Your task to perform on an android device: Go to battery settings Image 0: 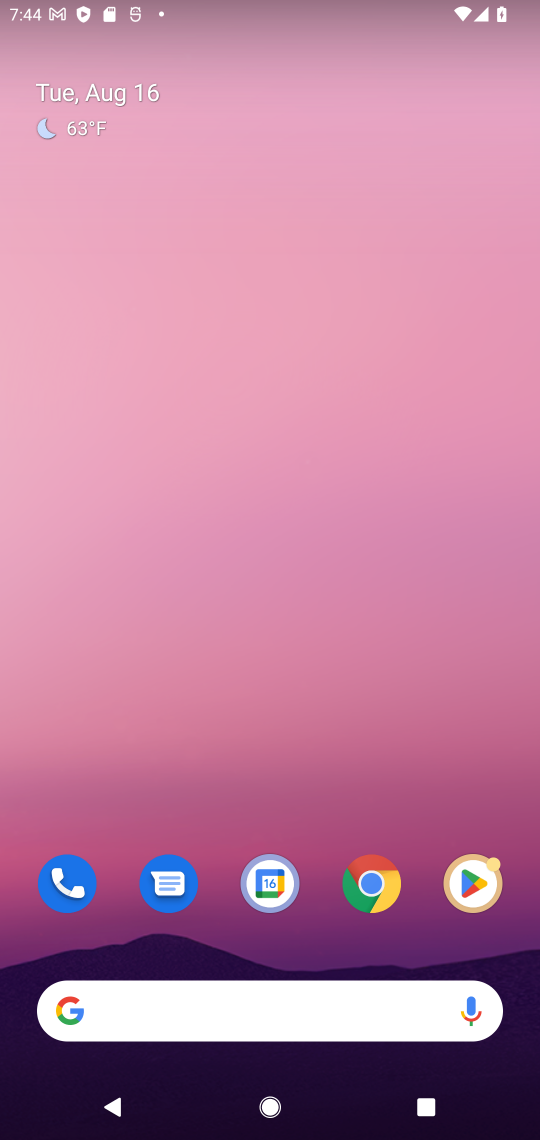
Step 0: drag from (316, 816) to (297, 341)
Your task to perform on an android device: Go to battery settings Image 1: 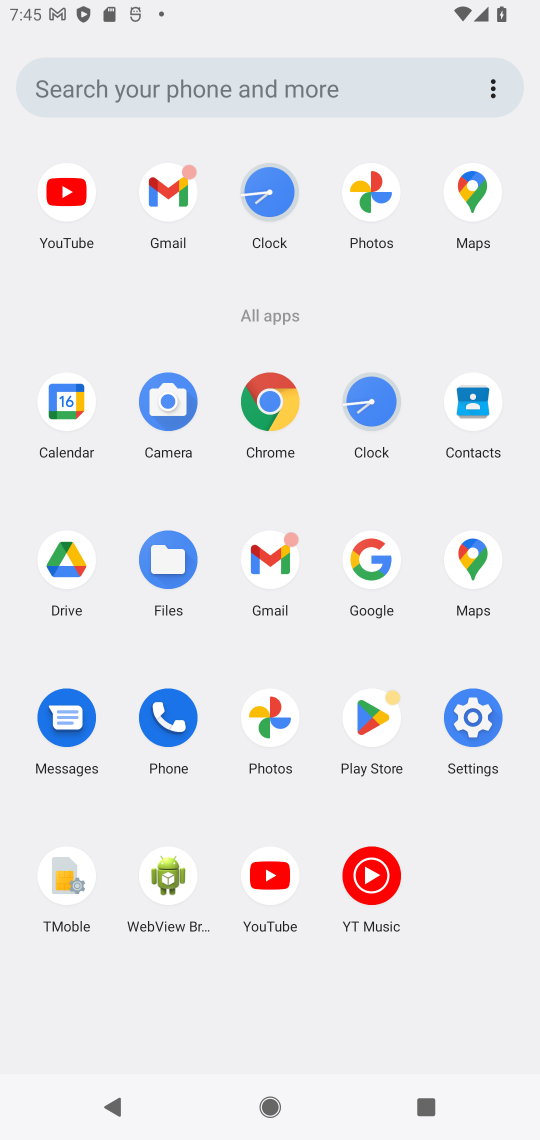
Step 1: click (452, 728)
Your task to perform on an android device: Go to battery settings Image 2: 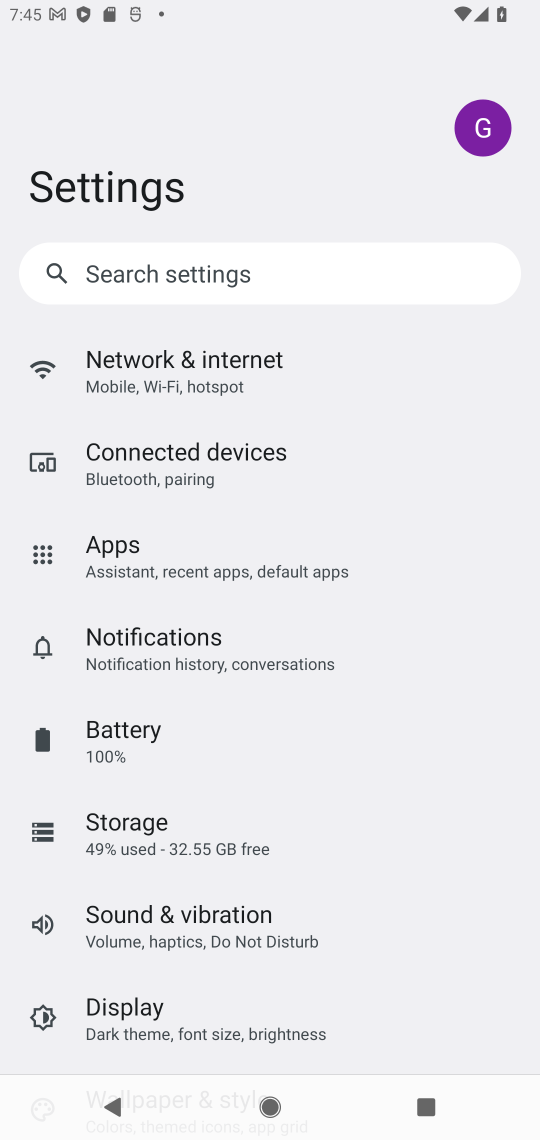
Step 2: click (172, 745)
Your task to perform on an android device: Go to battery settings Image 3: 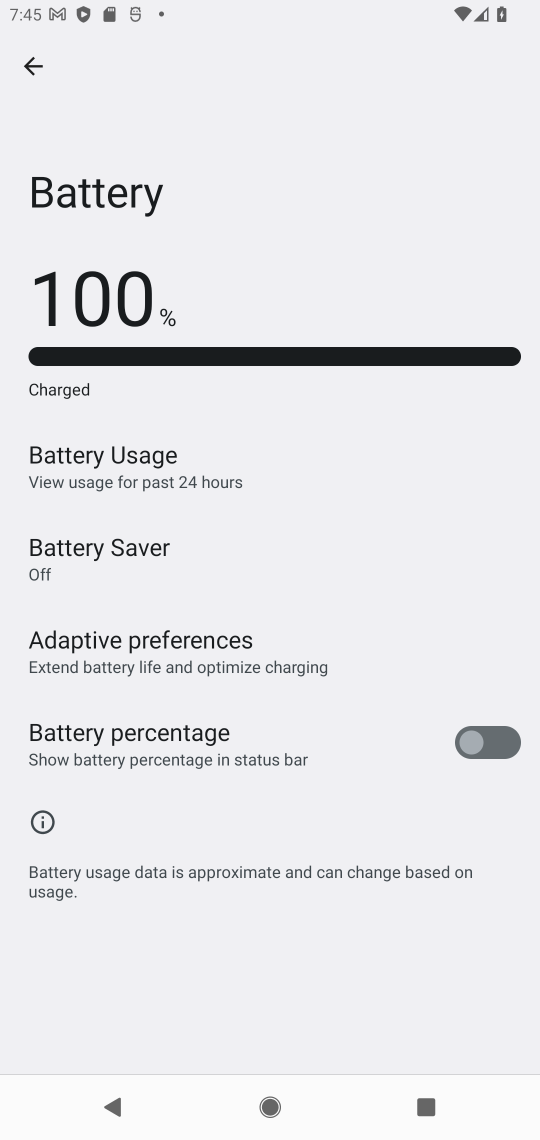
Step 3: task complete